Your task to perform on an android device: snooze an email in the gmail app Image 0: 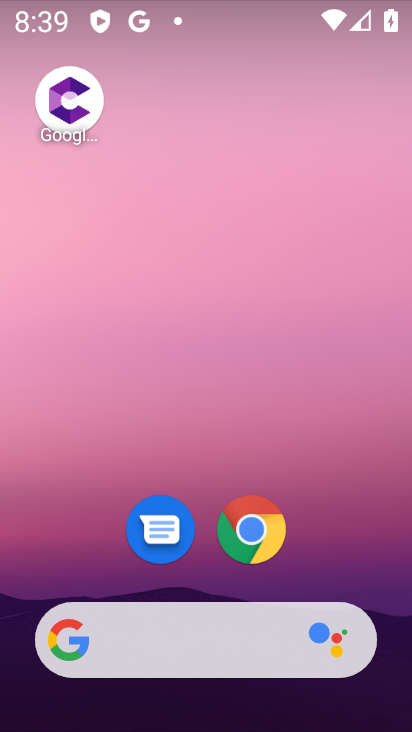
Step 0: drag from (318, 540) to (312, 253)
Your task to perform on an android device: snooze an email in the gmail app Image 1: 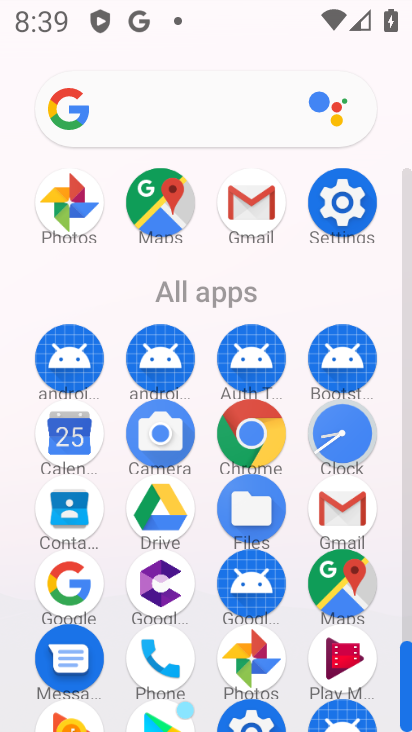
Step 1: click (347, 505)
Your task to perform on an android device: snooze an email in the gmail app Image 2: 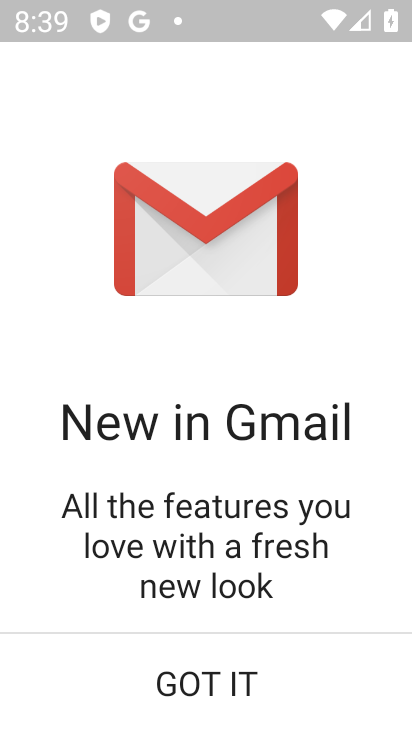
Step 2: click (274, 672)
Your task to perform on an android device: snooze an email in the gmail app Image 3: 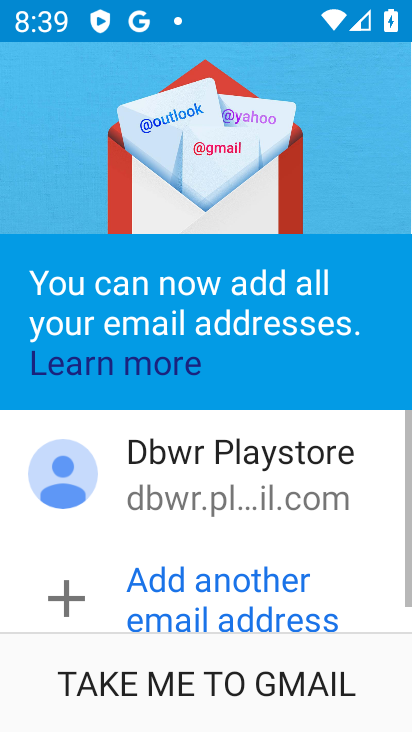
Step 3: click (279, 664)
Your task to perform on an android device: snooze an email in the gmail app Image 4: 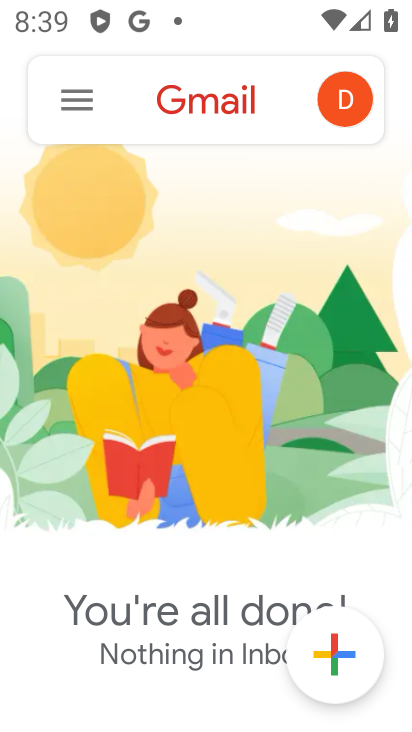
Step 4: click (84, 93)
Your task to perform on an android device: snooze an email in the gmail app Image 5: 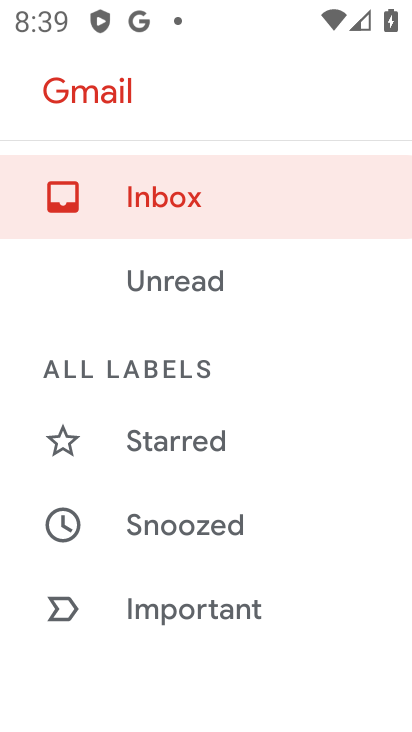
Step 5: click (187, 513)
Your task to perform on an android device: snooze an email in the gmail app Image 6: 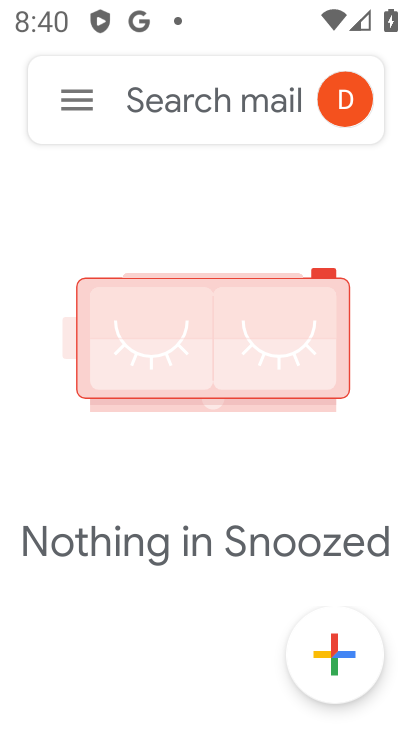
Step 6: task complete